Your task to perform on an android device: What is the recent news? Image 0: 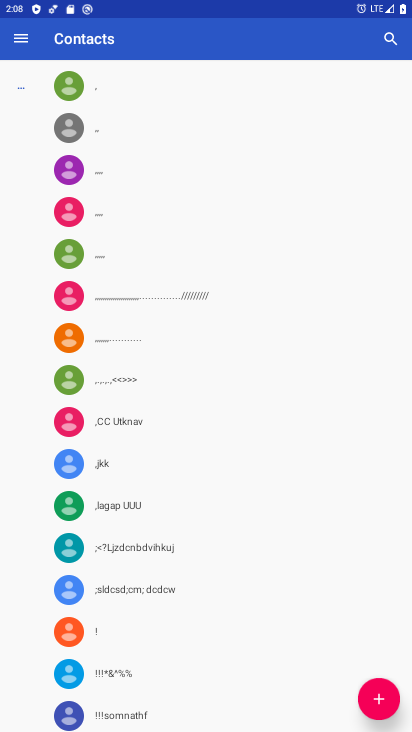
Step 0: press home button
Your task to perform on an android device: What is the recent news? Image 1: 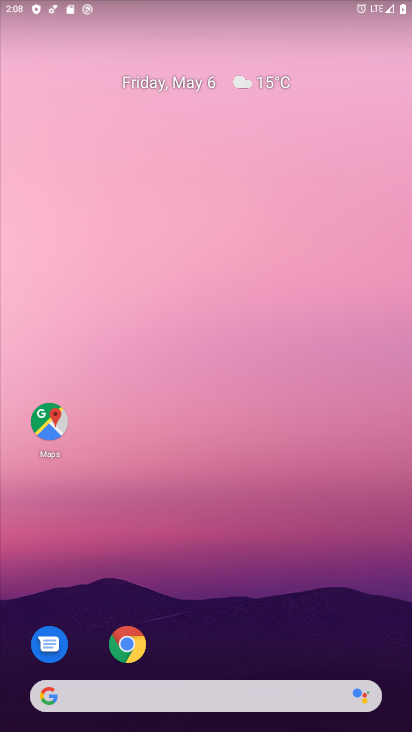
Step 1: click (130, 684)
Your task to perform on an android device: What is the recent news? Image 2: 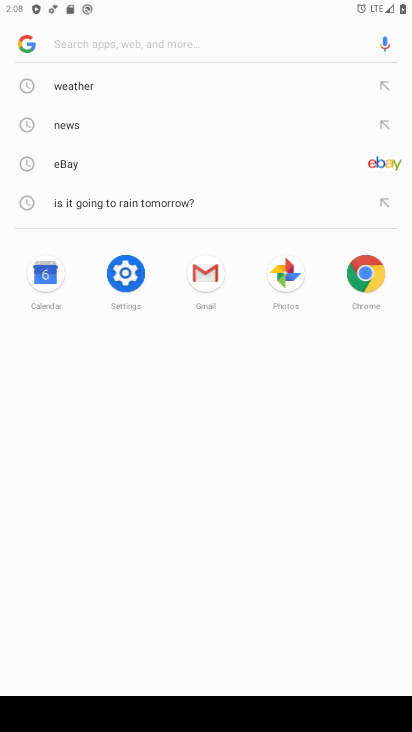
Step 2: type "recent news"
Your task to perform on an android device: What is the recent news? Image 3: 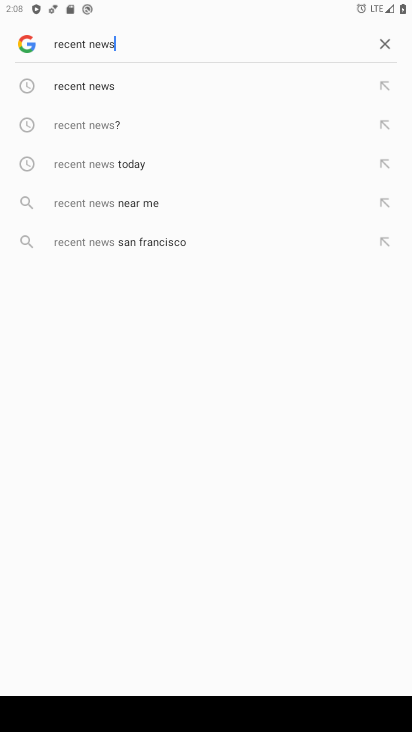
Step 3: click (176, 92)
Your task to perform on an android device: What is the recent news? Image 4: 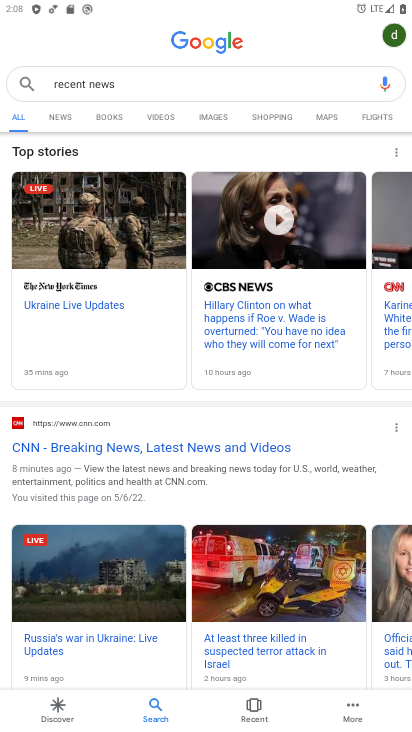
Step 4: task complete